Your task to perform on an android device: Go to accessibility settings Image 0: 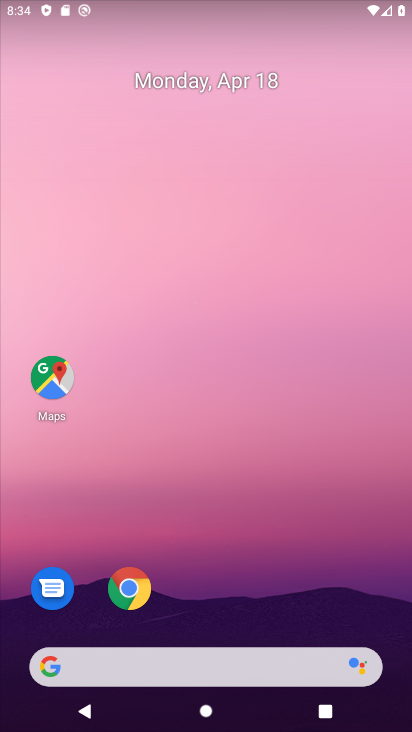
Step 0: drag from (190, 600) to (142, 222)
Your task to perform on an android device: Go to accessibility settings Image 1: 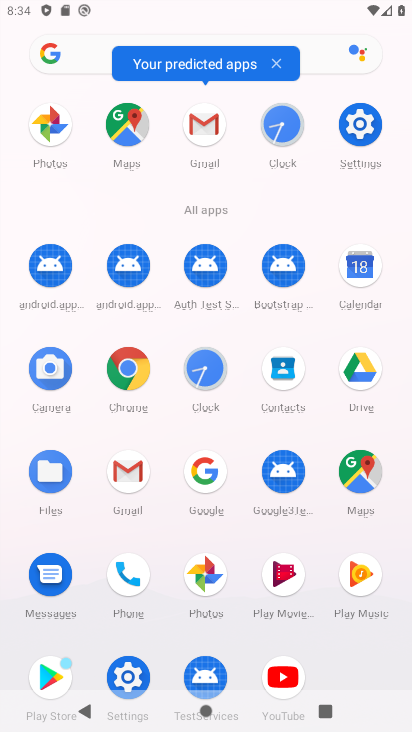
Step 1: click (363, 132)
Your task to perform on an android device: Go to accessibility settings Image 2: 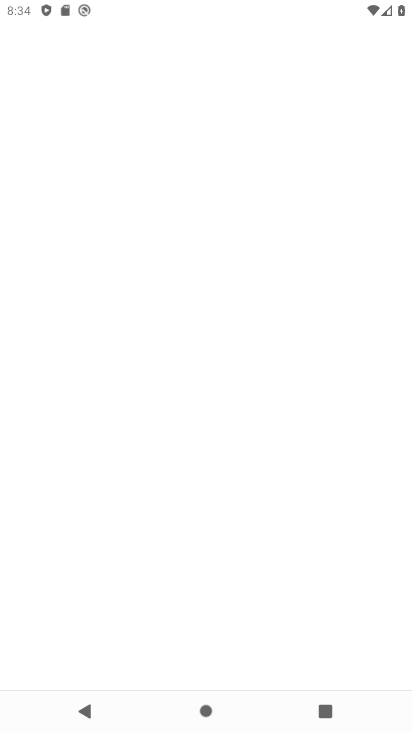
Step 2: click (357, 127)
Your task to perform on an android device: Go to accessibility settings Image 3: 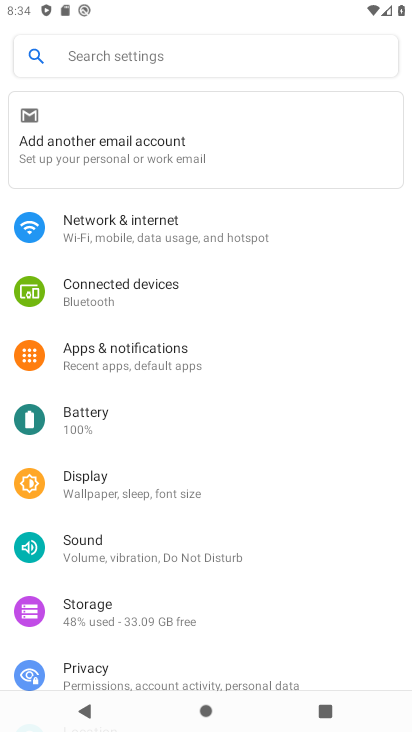
Step 3: drag from (204, 526) to (220, 212)
Your task to perform on an android device: Go to accessibility settings Image 4: 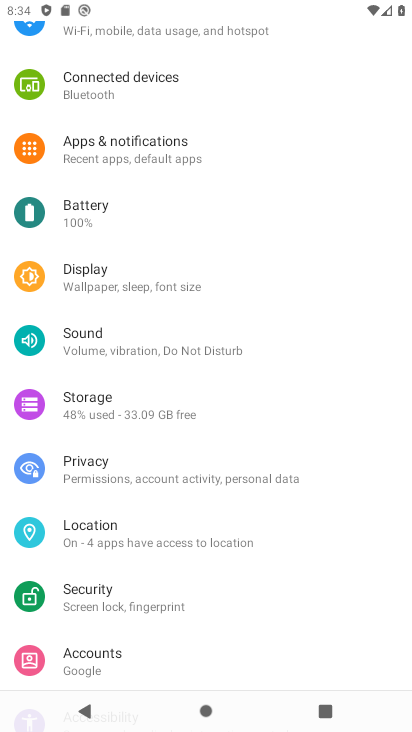
Step 4: drag from (173, 619) to (230, 218)
Your task to perform on an android device: Go to accessibility settings Image 5: 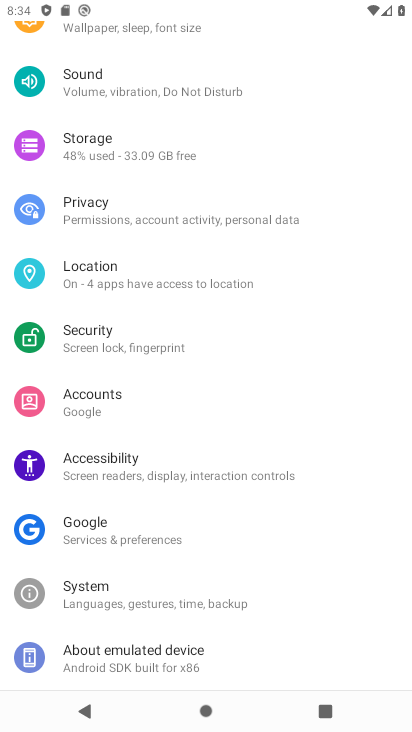
Step 5: click (155, 472)
Your task to perform on an android device: Go to accessibility settings Image 6: 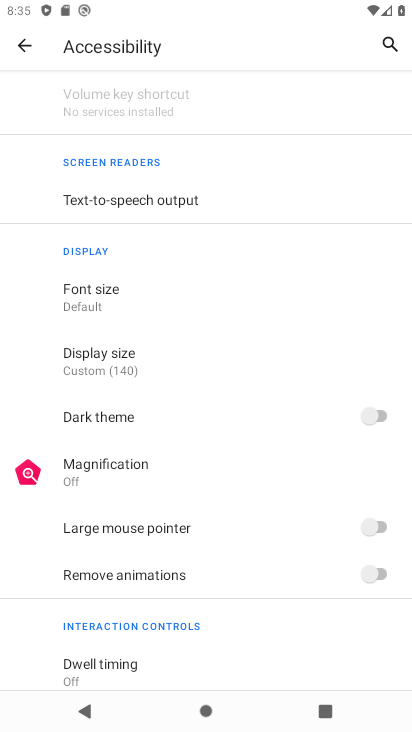
Step 6: task complete